Your task to perform on an android device: Search for sushi restaurants on Maps Image 0: 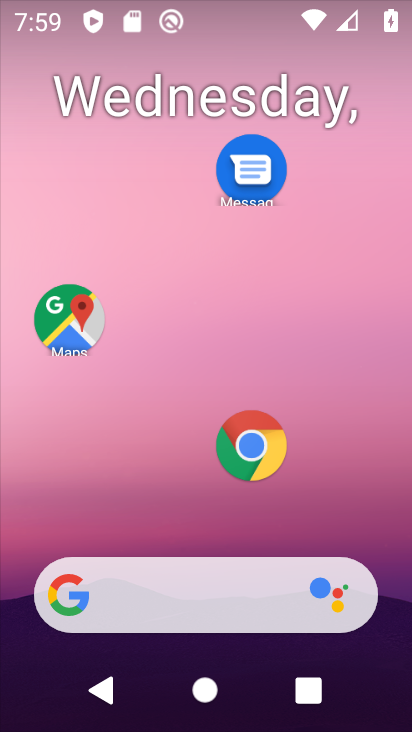
Step 0: drag from (257, 520) to (197, 219)
Your task to perform on an android device: Search for sushi restaurants on Maps Image 1: 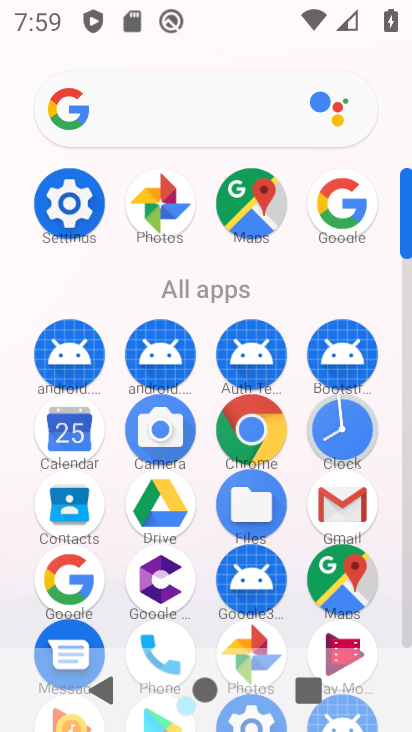
Step 1: click (329, 570)
Your task to perform on an android device: Search for sushi restaurants on Maps Image 2: 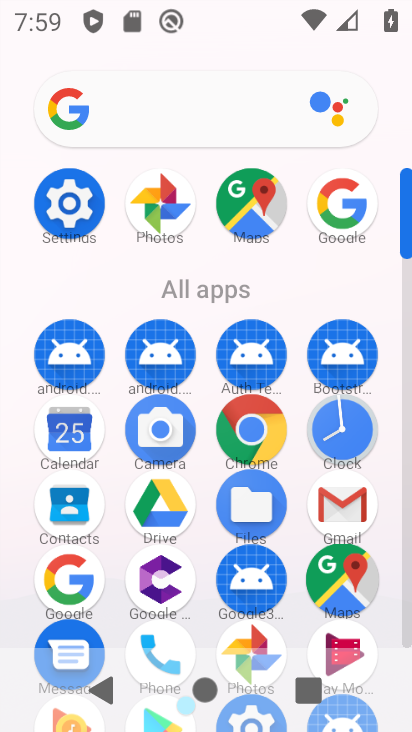
Step 2: click (337, 585)
Your task to perform on an android device: Search for sushi restaurants on Maps Image 3: 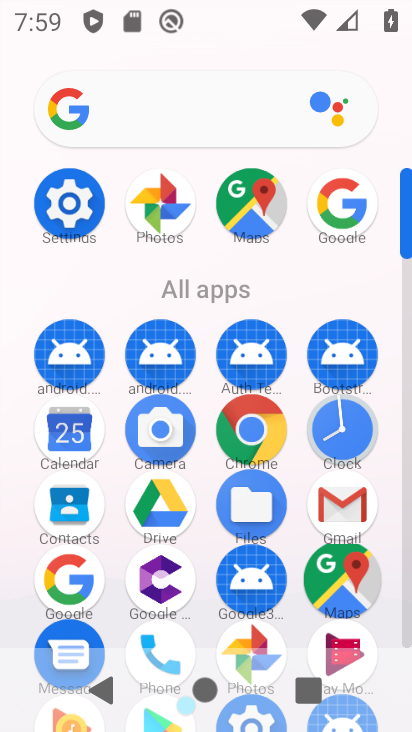
Step 3: click (337, 585)
Your task to perform on an android device: Search for sushi restaurants on Maps Image 4: 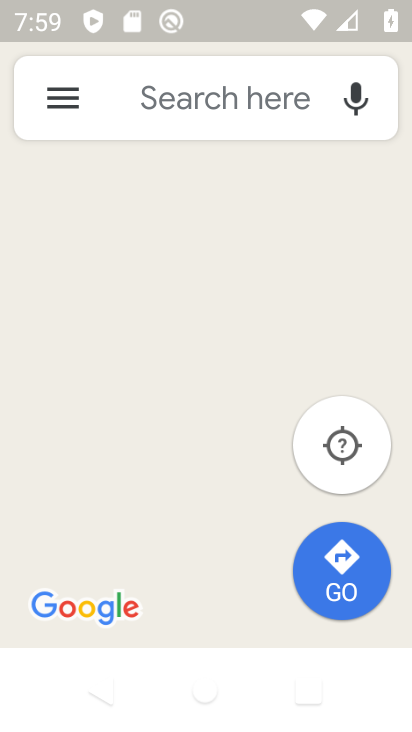
Step 4: click (91, 93)
Your task to perform on an android device: Search for sushi restaurants on Maps Image 5: 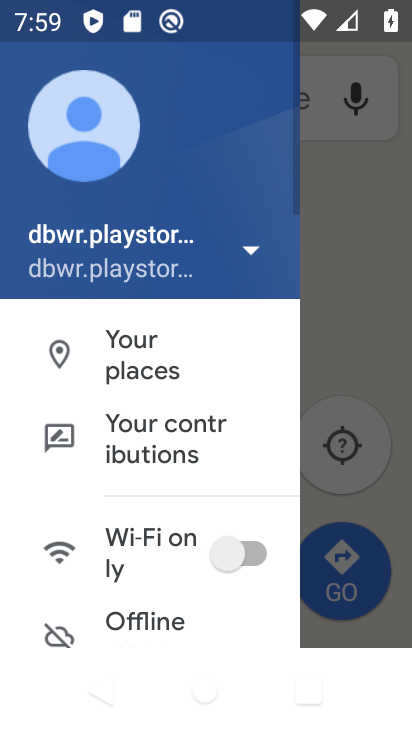
Step 5: click (366, 282)
Your task to perform on an android device: Search for sushi restaurants on Maps Image 6: 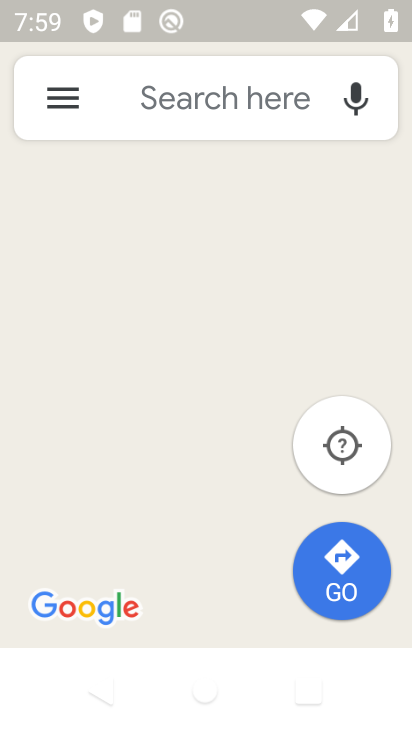
Step 6: click (146, 102)
Your task to perform on an android device: Search for sushi restaurants on Maps Image 7: 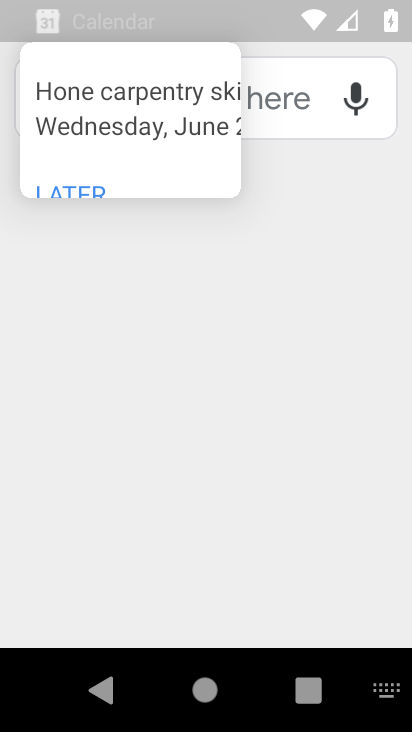
Step 7: type "sushi restaurants"
Your task to perform on an android device: Search for sushi restaurants on Maps Image 8: 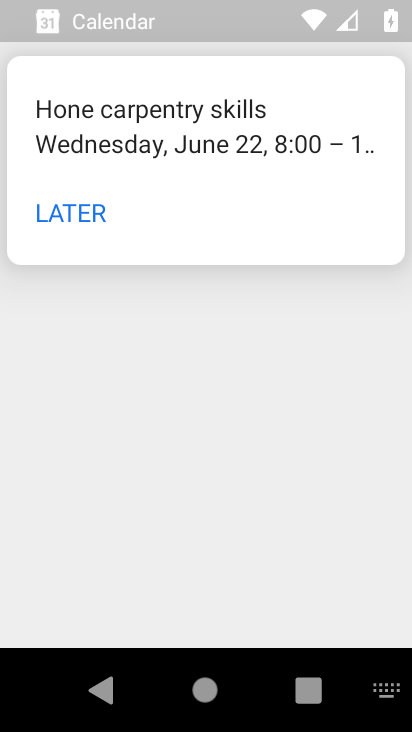
Step 8: click (146, 304)
Your task to perform on an android device: Search for sushi restaurants on Maps Image 9: 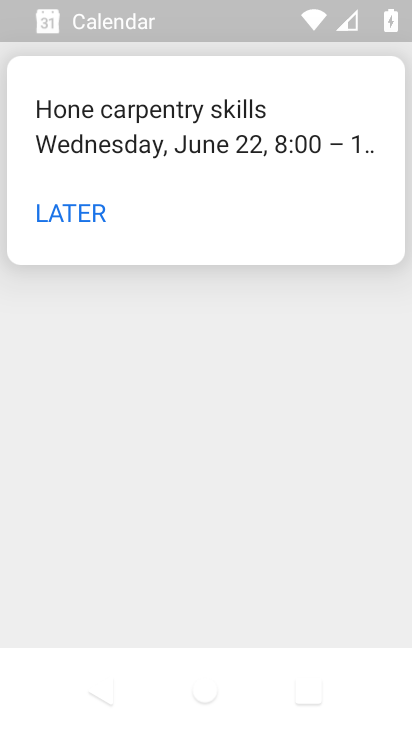
Step 9: click (163, 299)
Your task to perform on an android device: Search for sushi restaurants on Maps Image 10: 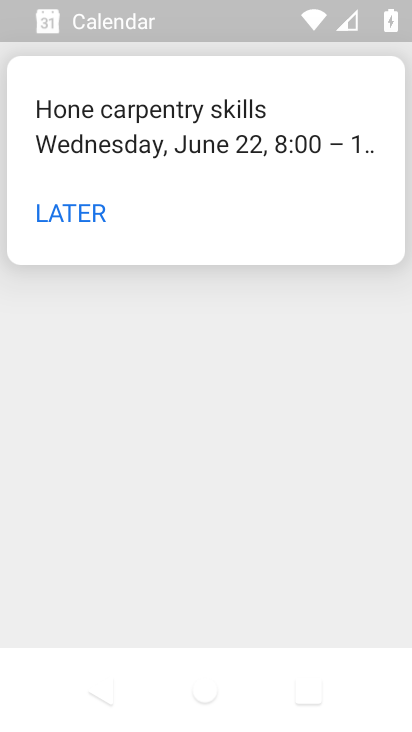
Step 10: click (157, 293)
Your task to perform on an android device: Search for sushi restaurants on Maps Image 11: 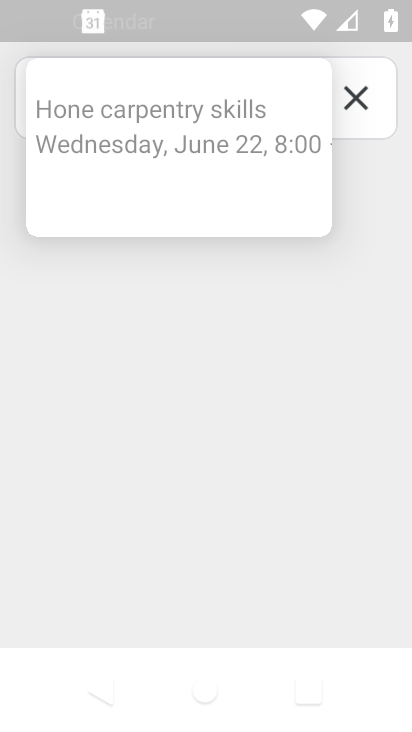
Step 11: click (157, 293)
Your task to perform on an android device: Search for sushi restaurants on Maps Image 12: 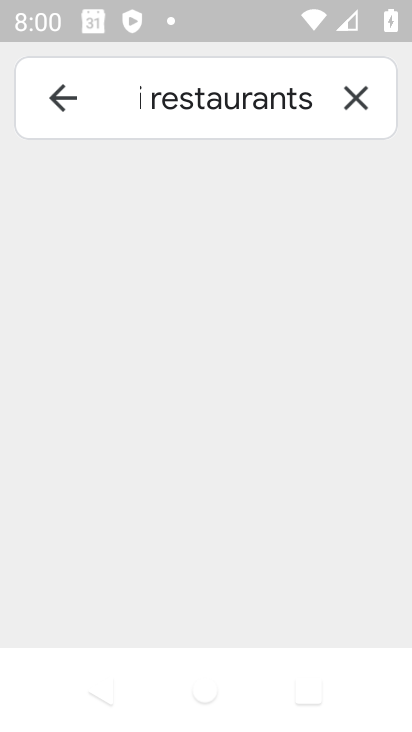
Step 12: click (132, 276)
Your task to perform on an android device: Search for sushi restaurants on Maps Image 13: 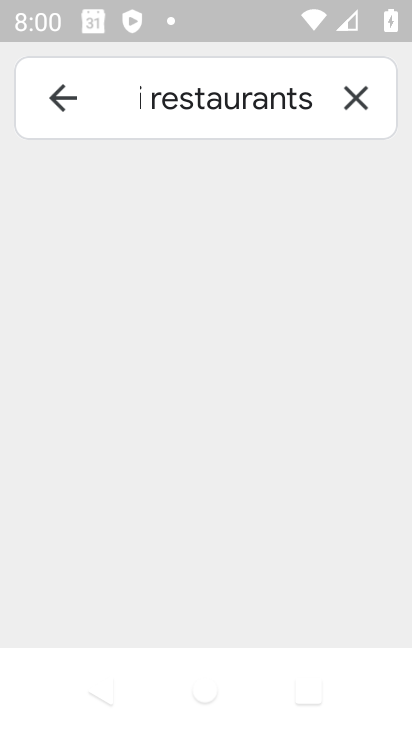
Step 13: click (70, 216)
Your task to perform on an android device: Search for sushi restaurants on Maps Image 14: 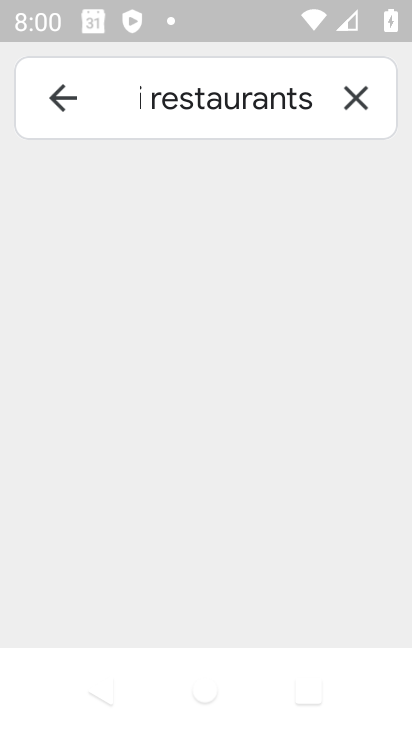
Step 14: click (229, 112)
Your task to perform on an android device: Search for sushi restaurants on Maps Image 15: 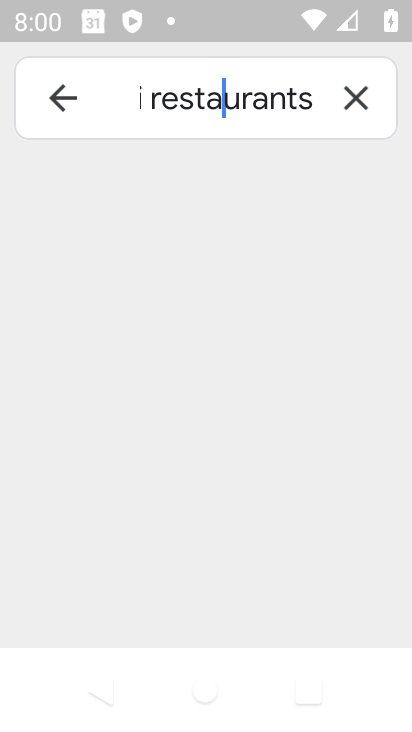
Step 15: click (229, 112)
Your task to perform on an android device: Search for sushi restaurants on Maps Image 16: 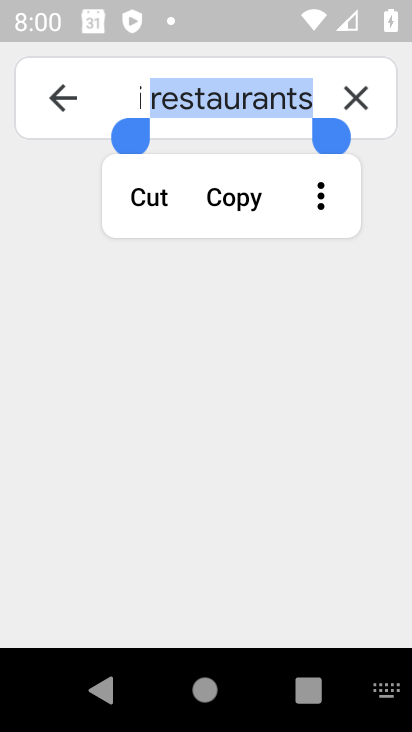
Step 16: task complete